Your task to perform on an android device: Open Google Chrome and click the shortcut for Amazon.com Image 0: 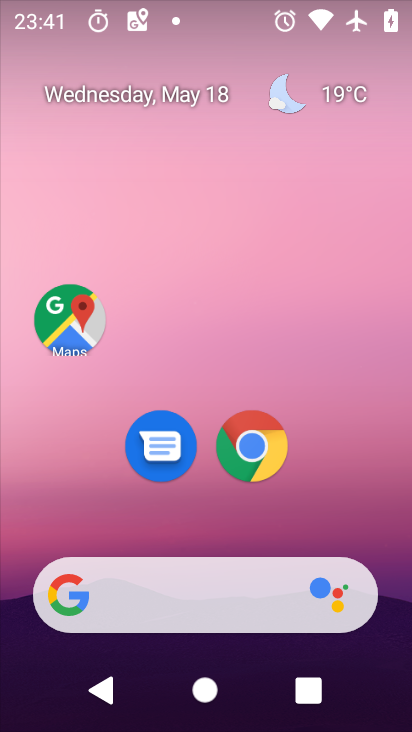
Step 0: press home button
Your task to perform on an android device: Open Google Chrome and click the shortcut for Amazon.com Image 1: 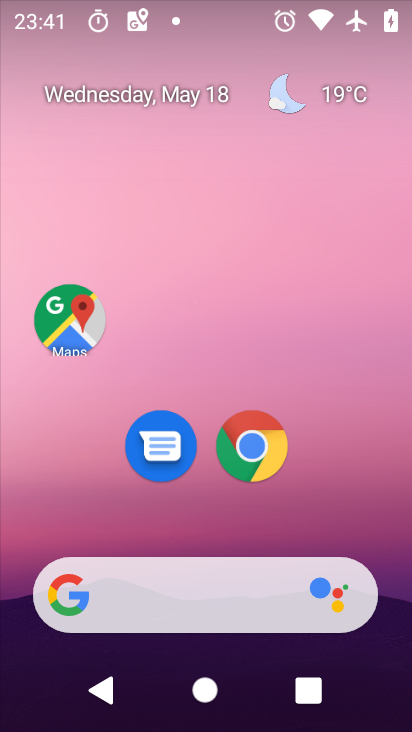
Step 1: click (260, 461)
Your task to perform on an android device: Open Google Chrome and click the shortcut for Amazon.com Image 2: 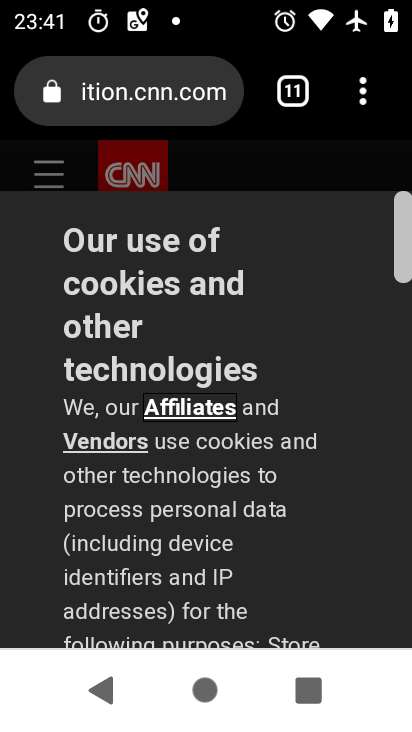
Step 2: drag from (368, 96) to (258, 175)
Your task to perform on an android device: Open Google Chrome and click the shortcut for Amazon.com Image 3: 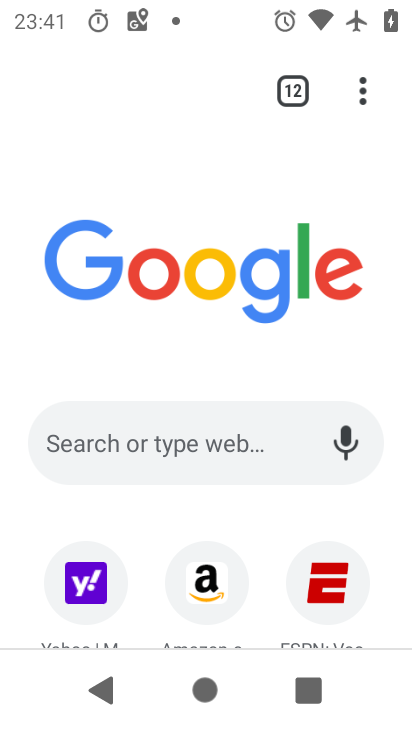
Step 3: drag from (163, 535) to (306, 196)
Your task to perform on an android device: Open Google Chrome and click the shortcut for Amazon.com Image 4: 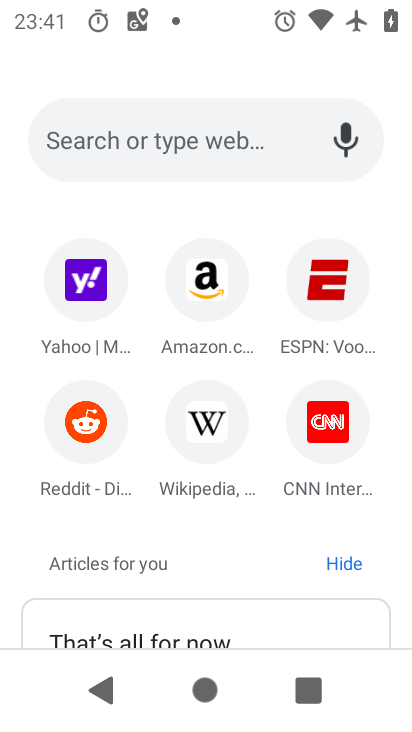
Step 4: click (211, 287)
Your task to perform on an android device: Open Google Chrome and click the shortcut for Amazon.com Image 5: 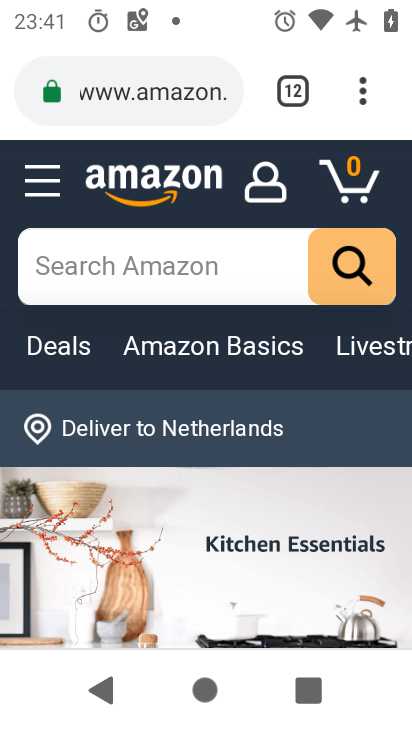
Step 5: task complete